Your task to perform on an android device: uninstall "Clock" Image 0: 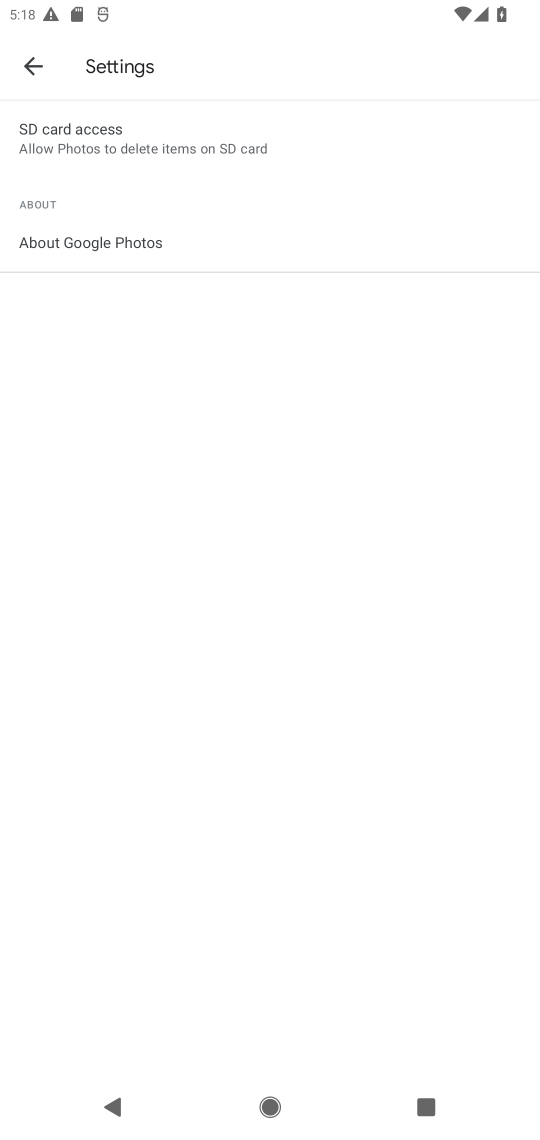
Step 0: press home button
Your task to perform on an android device: uninstall "Clock" Image 1: 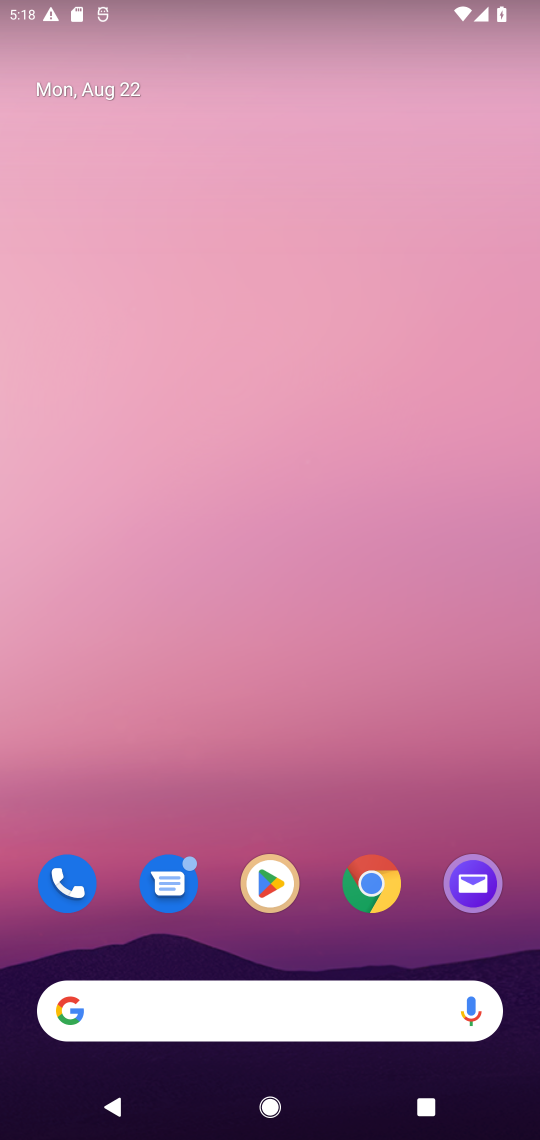
Step 1: drag from (233, 1015) to (216, 253)
Your task to perform on an android device: uninstall "Clock" Image 2: 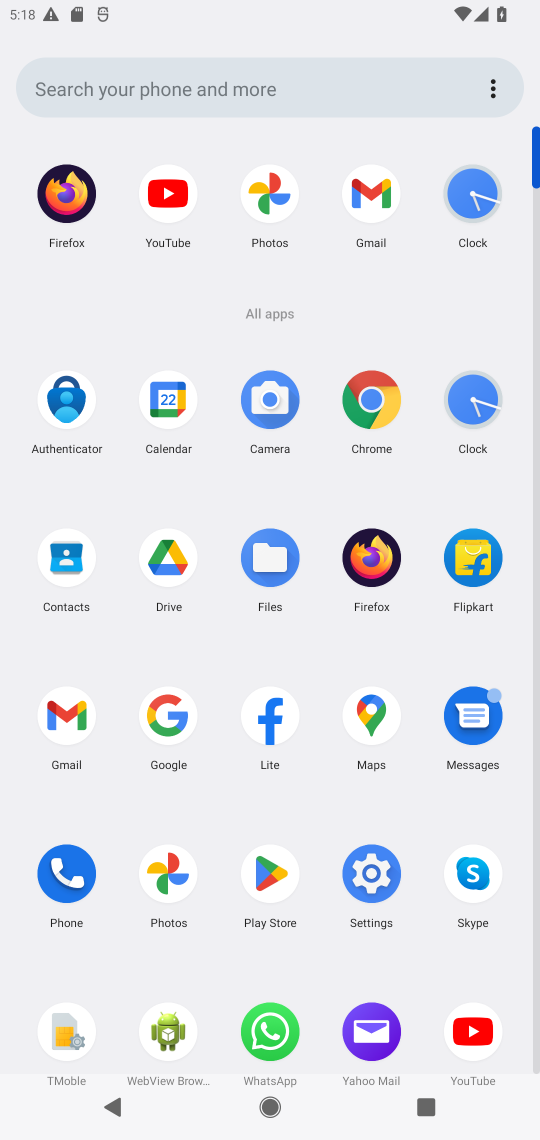
Step 2: click (270, 871)
Your task to perform on an android device: uninstall "Clock" Image 3: 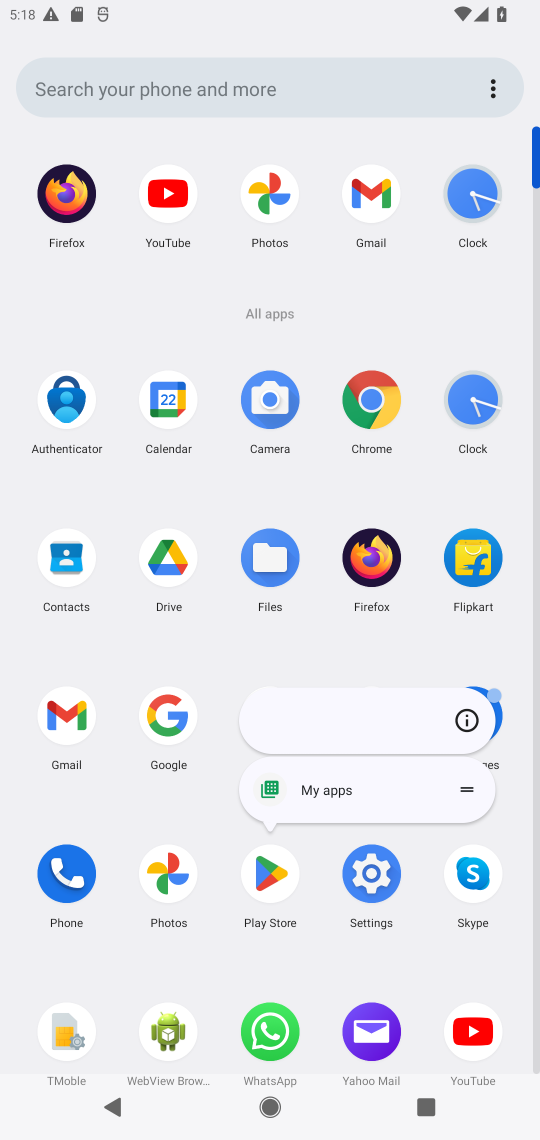
Step 3: click (273, 878)
Your task to perform on an android device: uninstall "Clock" Image 4: 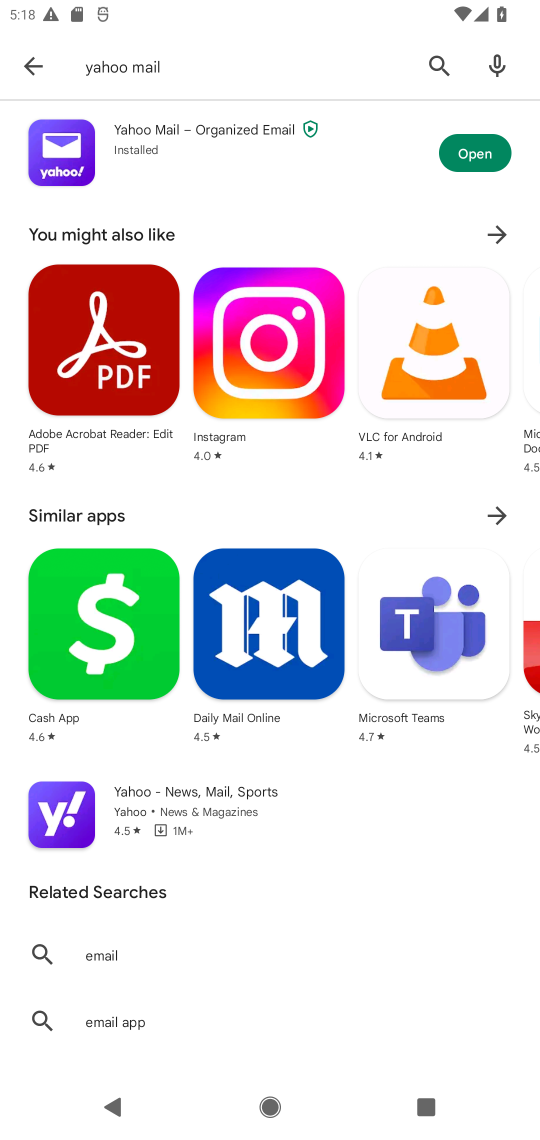
Step 4: click (425, 65)
Your task to perform on an android device: uninstall "Clock" Image 5: 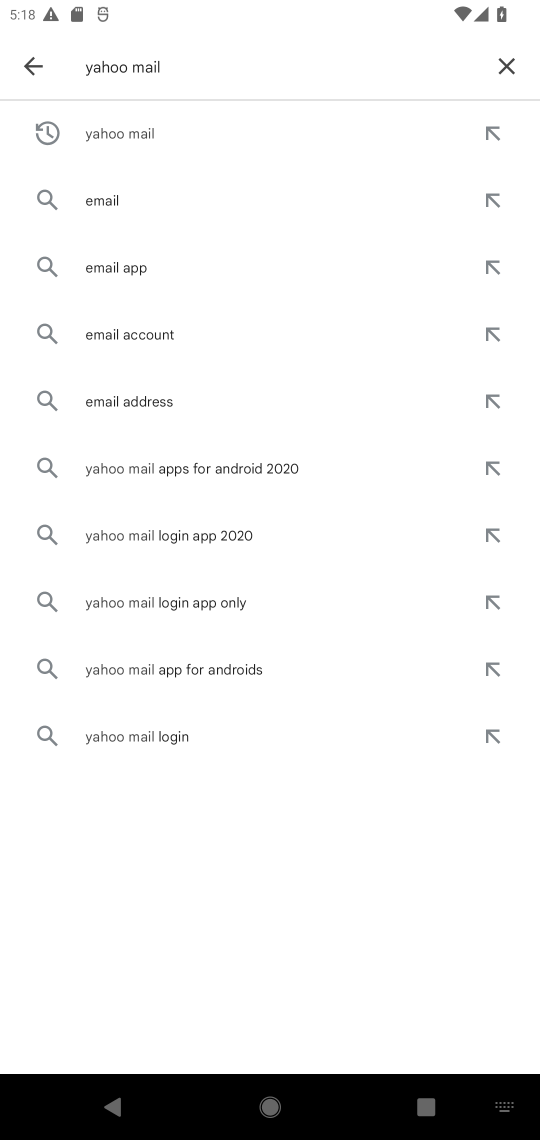
Step 5: click (496, 65)
Your task to perform on an android device: uninstall "Clock" Image 6: 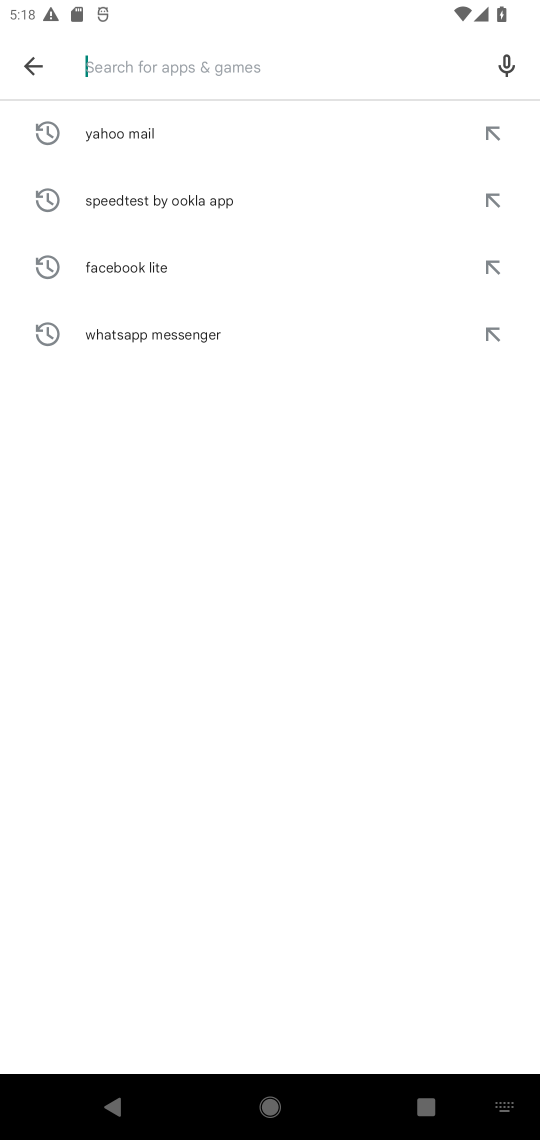
Step 6: type "Clock"
Your task to perform on an android device: uninstall "Clock" Image 7: 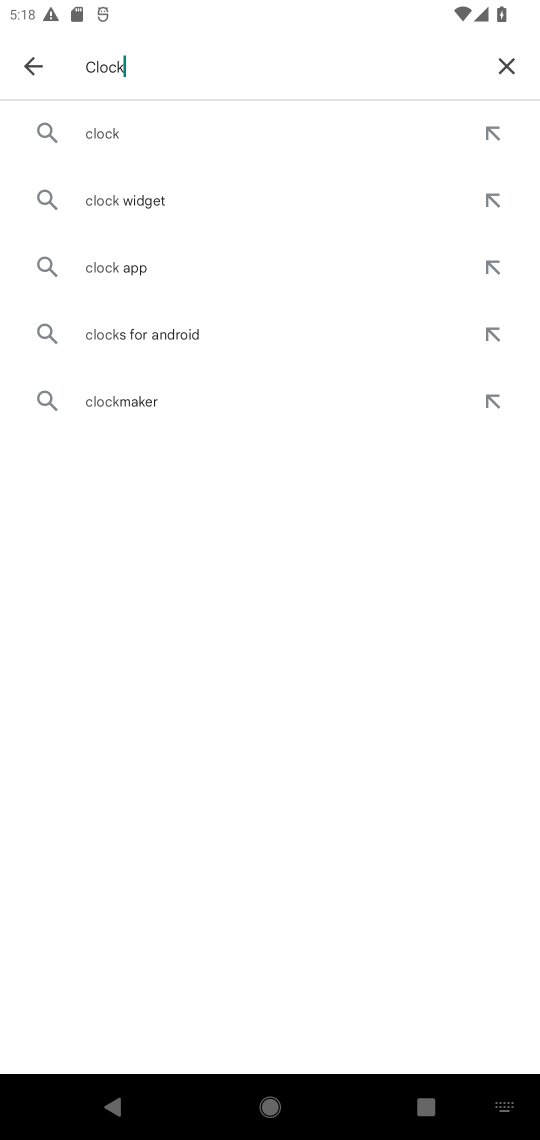
Step 7: click (88, 143)
Your task to perform on an android device: uninstall "Clock" Image 8: 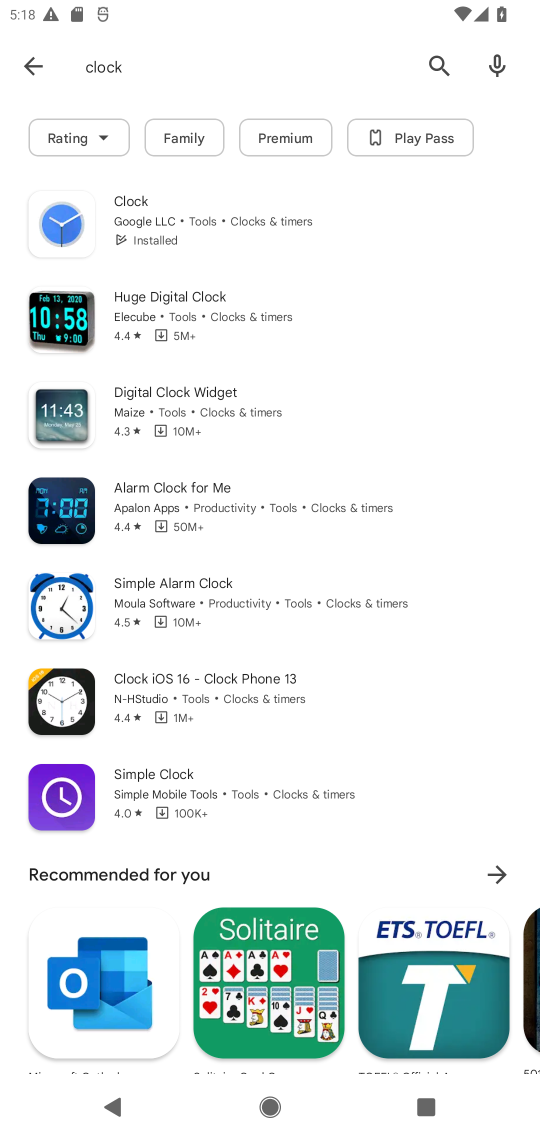
Step 8: click (114, 230)
Your task to perform on an android device: uninstall "Clock" Image 9: 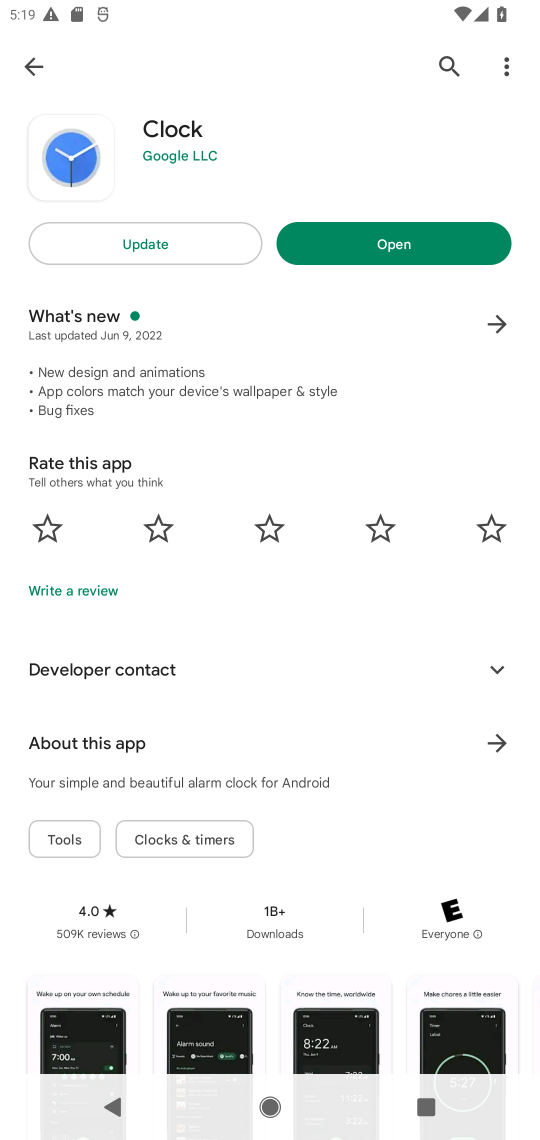
Step 9: task complete